Your task to perform on an android device: turn off notifications in google photos Image 0: 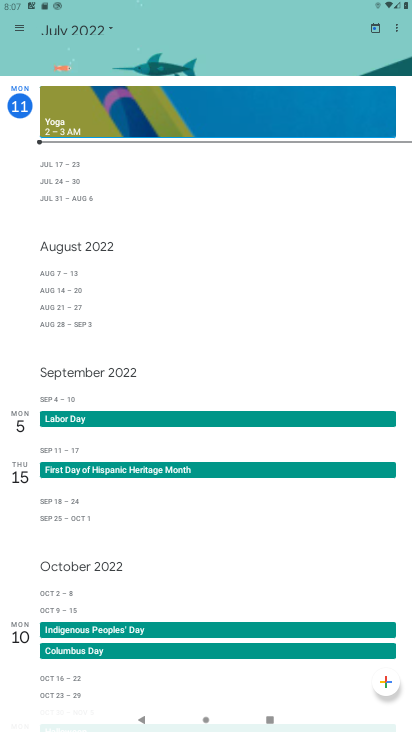
Step 0: press home button
Your task to perform on an android device: turn off notifications in google photos Image 1: 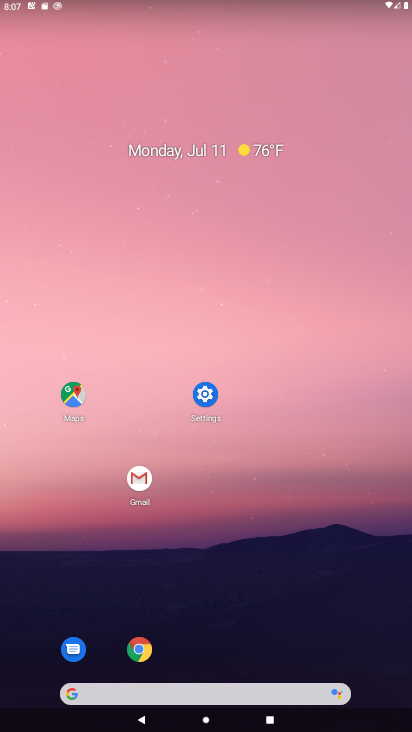
Step 1: click (206, 393)
Your task to perform on an android device: turn off notifications in google photos Image 2: 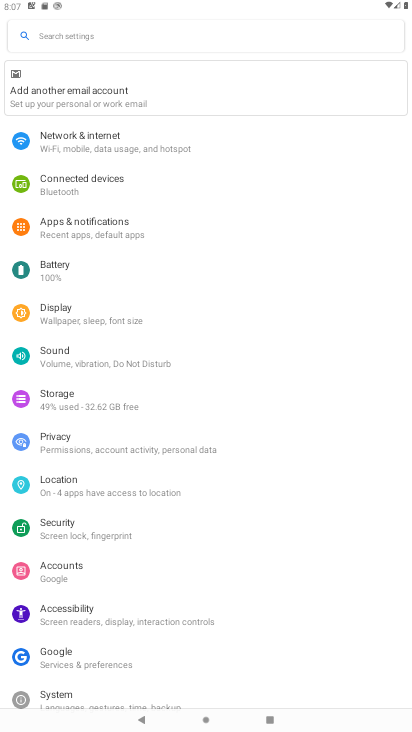
Step 2: press home button
Your task to perform on an android device: turn off notifications in google photos Image 3: 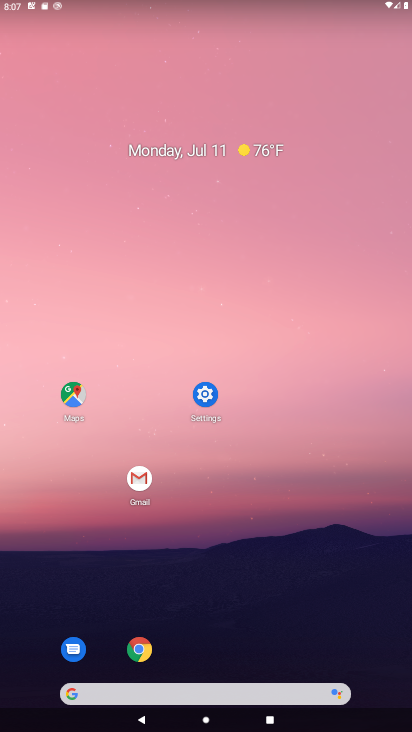
Step 3: drag from (367, 605) to (294, 95)
Your task to perform on an android device: turn off notifications in google photos Image 4: 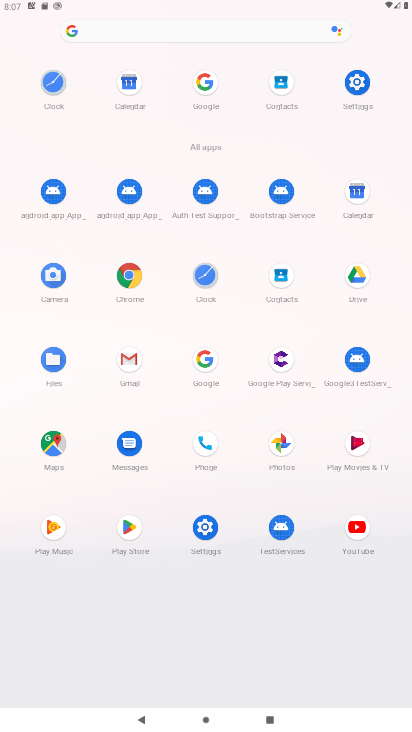
Step 4: click (277, 453)
Your task to perform on an android device: turn off notifications in google photos Image 5: 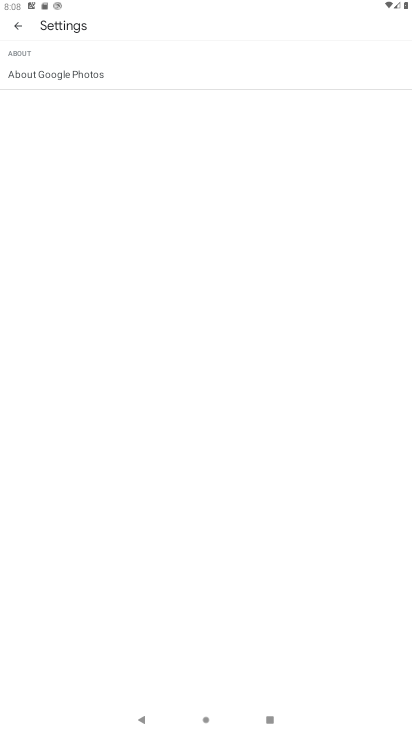
Step 5: click (18, 29)
Your task to perform on an android device: turn off notifications in google photos Image 6: 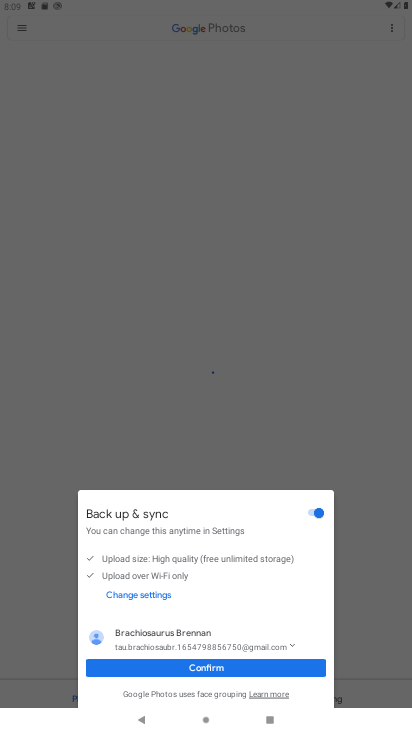
Step 6: click (246, 662)
Your task to perform on an android device: turn off notifications in google photos Image 7: 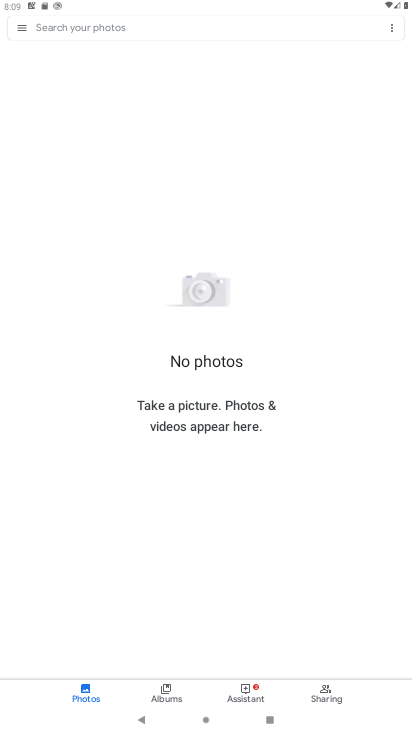
Step 7: click (21, 30)
Your task to perform on an android device: turn off notifications in google photos Image 8: 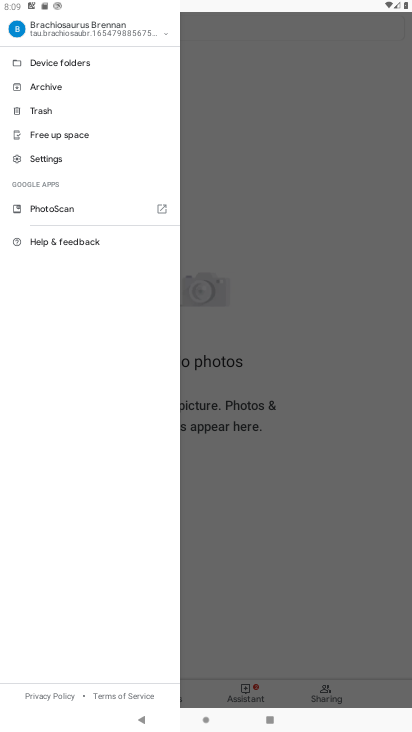
Step 8: click (42, 154)
Your task to perform on an android device: turn off notifications in google photos Image 9: 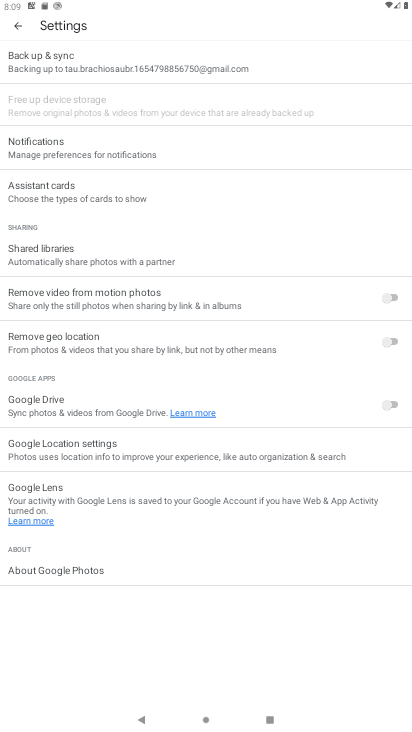
Step 9: click (42, 147)
Your task to perform on an android device: turn off notifications in google photos Image 10: 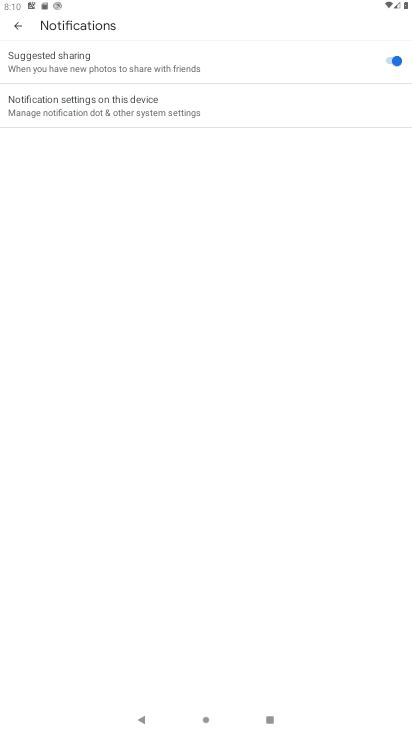
Step 10: click (390, 59)
Your task to perform on an android device: turn off notifications in google photos Image 11: 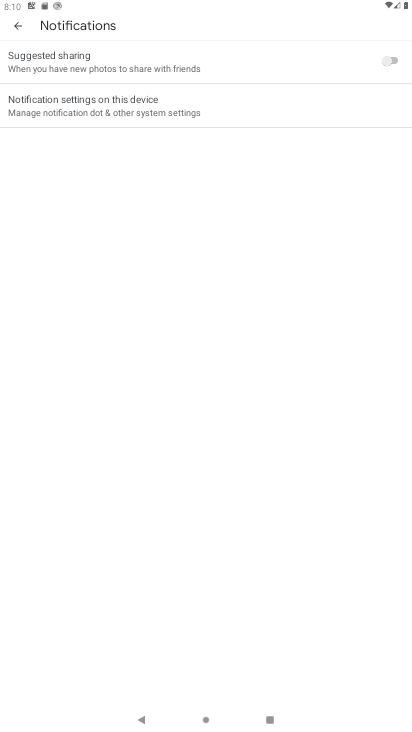
Step 11: task complete